Your task to perform on an android device: turn smart compose on in the gmail app Image 0: 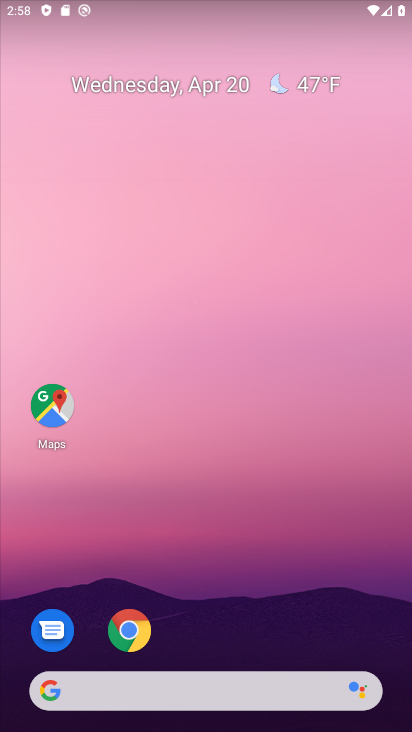
Step 0: drag from (204, 650) to (258, 322)
Your task to perform on an android device: turn smart compose on in the gmail app Image 1: 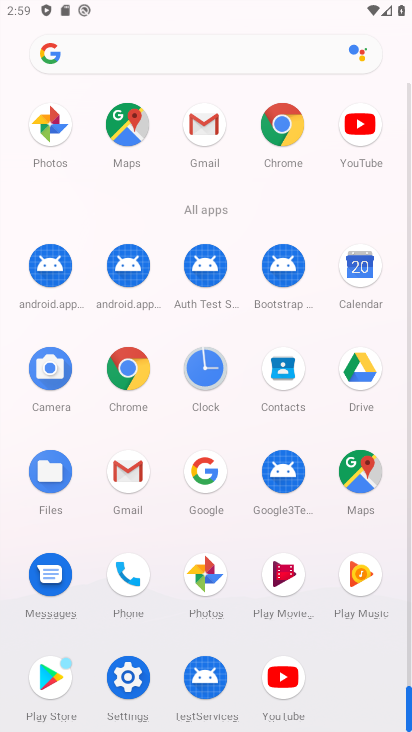
Step 1: click (201, 120)
Your task to perform on an android device: turn smart compose on in the gmail app Image 2: 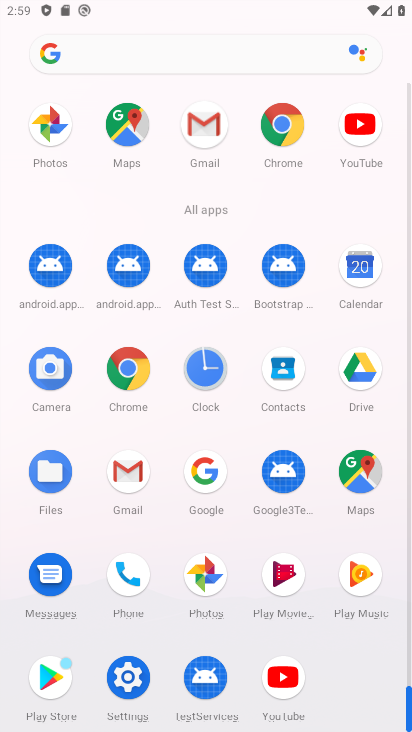
Step 2: click (201, 120)
Your task to perform on an android device: turn smart compose on in the gmail app Image 3: 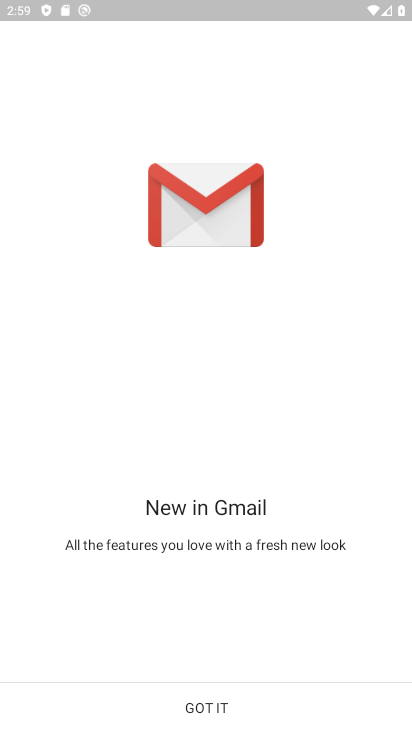
Step 3: click (189, 696)
Your task to perform on an android device: turn smart compose on in the gmail app Image 4: 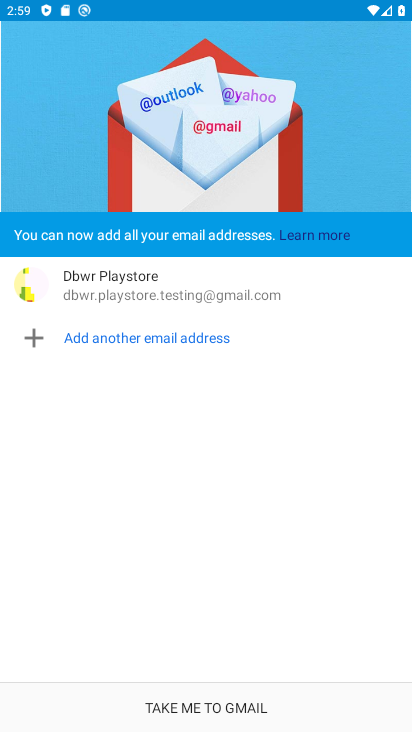
Step 4: click (232, 708)
Your task to perform on an android device: turn smart compose on in the gmail app Image 5: 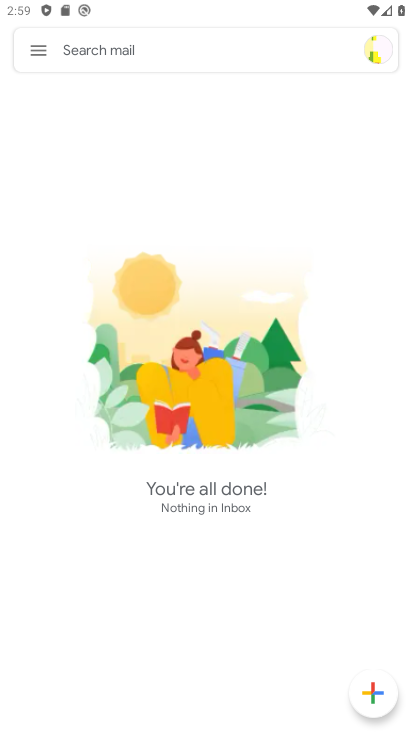
Step 5: click (35, 52)
Your task to perform on an android device: turn smart compose on in the gmail app Image 6: 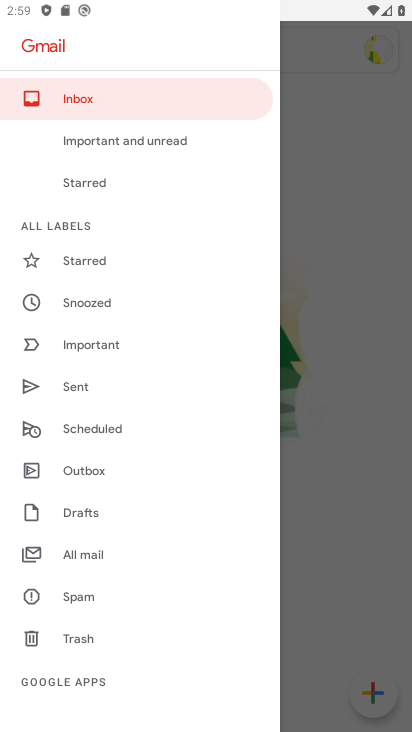
Step 6: drag from (118, 567) to (201, 202)
Your task to perform on an android device: turn smart compose on in the gmail app Image 7: 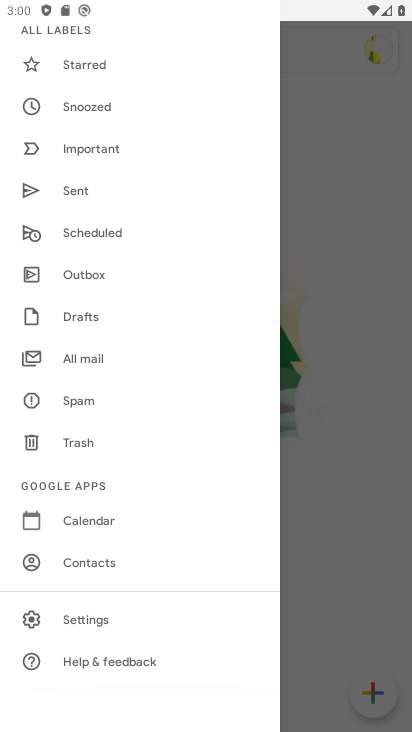
Step 7: click (108, 620)
Your task to perform on an android device: turn smart compose on in the gmail app Image 8: 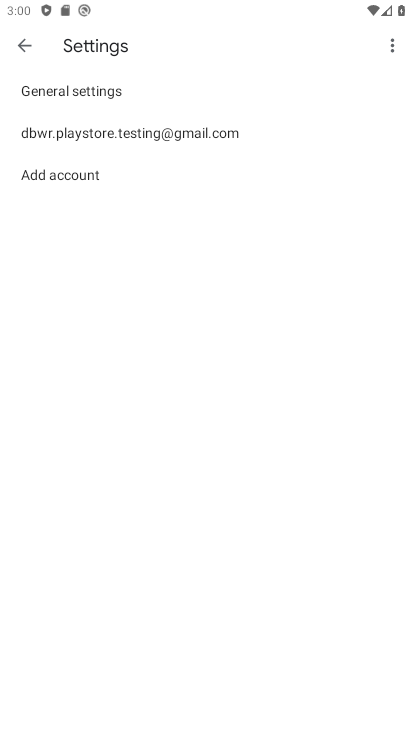
Step 8: click (179, 133)
Your task to perform on an android device: turn smart compose on in the gmail app Image 9: 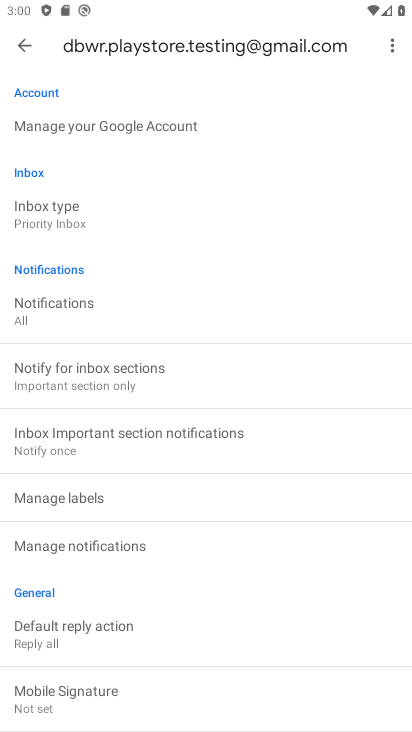
Step 9: task complete